Your task to perform on an android device: toggle priority inbox in the gmail app Image 0: 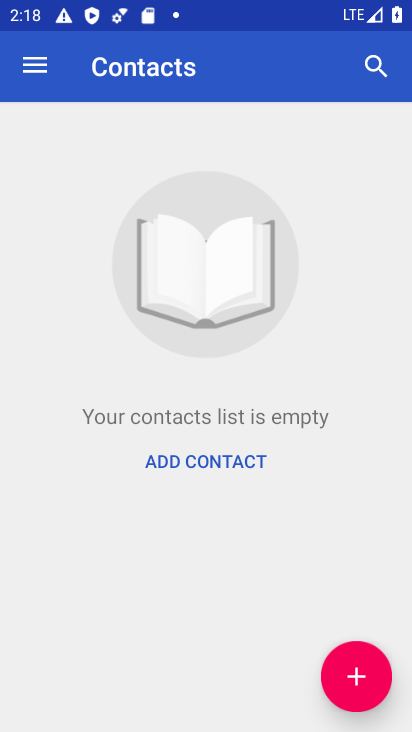
Step 0: press home button
Your task to perform on an android device: toggle priority inbox in the gmail app Image 1: 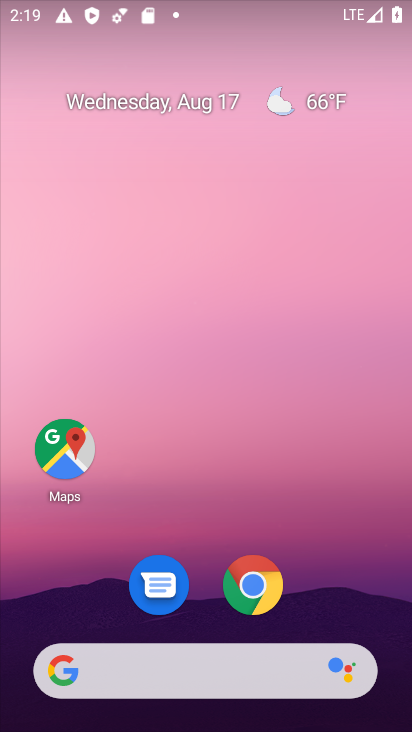
Step 1: drag from (247, 493) to (239, 3)
Your task to perform on an android device: toggle priority inbox in the gmail app Image 2: 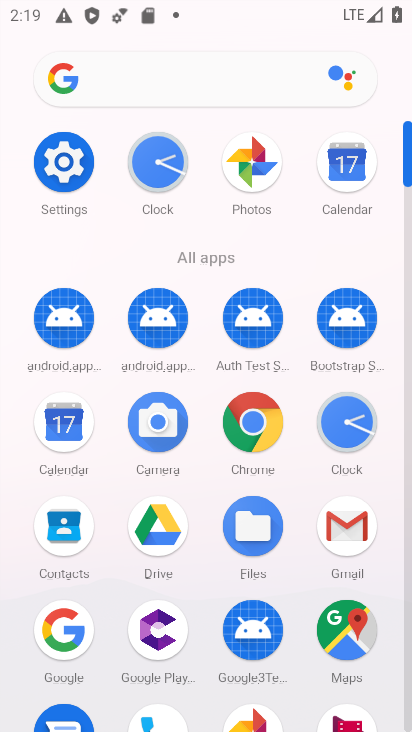
Step 2: click (353, 525)
Your task to perform on an android device: toggle priority inbox in the gmail app Image 3: 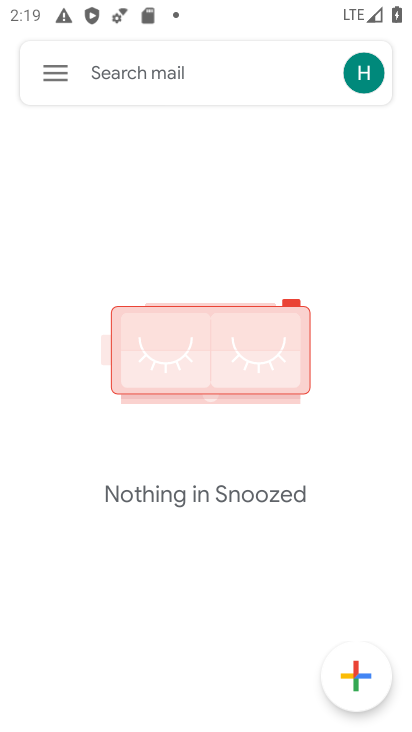
Step 3: click (51, 64)
Your task to perform on an android device: toggle priority inbox in the gmail app Image 4: 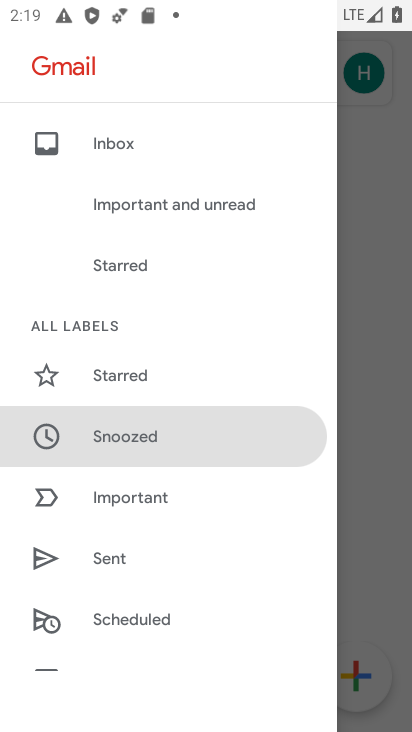
Step 4: click (383, 277)
Your task to perform on an android device: toggle priority inbox in the gmail app Image 5: 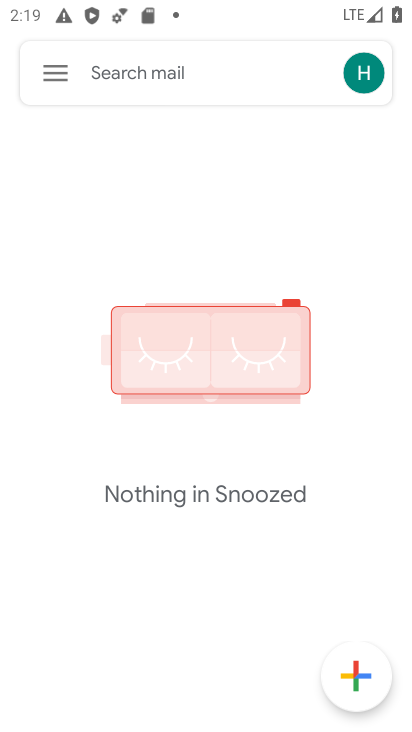
Step 5: click (57, 73)
Your task to perform on an android device: toggle priority inbox in the gmail app Image 6: 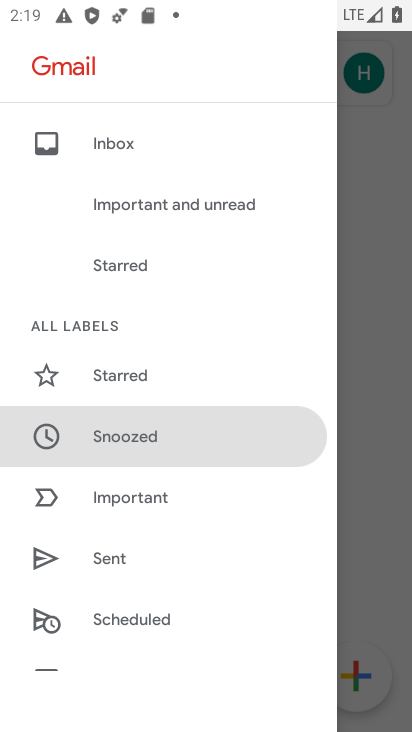
Step 6: drag from (136, 563) to (189, 6)
Your task to perform on an android device: toggle priority inbox in the gmail app Image 7: 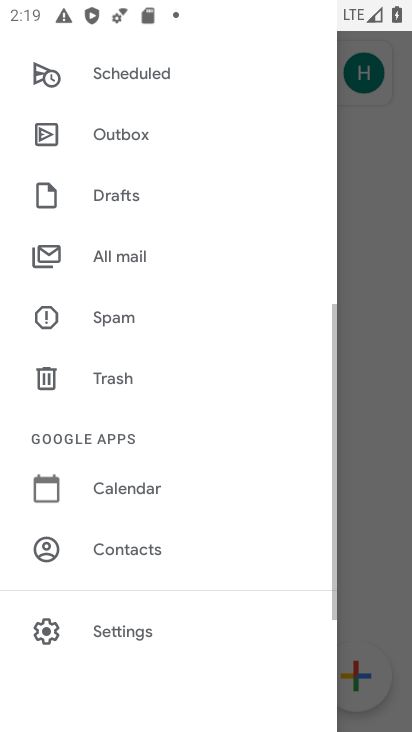
Step 7: drag from (139, 504) to (209, 177)
Your task to perform on an android device: toggle priority inbox in the gmail app Image 8: 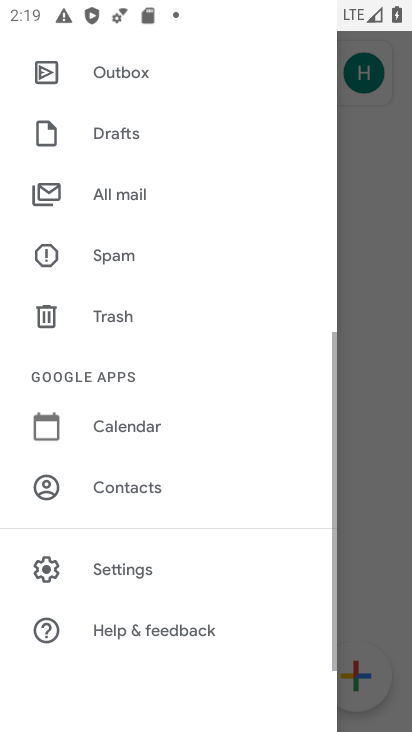
Step 8: click (147, 576)
Your task to perform on an android device: toggle priority inbox in the gmail app Image 9: 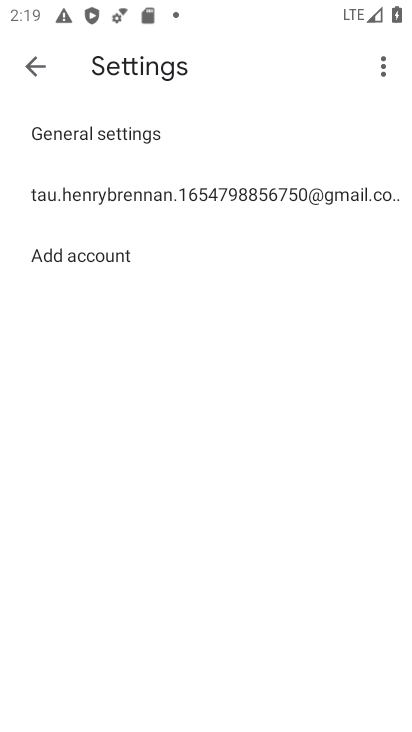
Step 9: click (270, 190)
Your task to perform on an android device: toggle priority inbox in the gmail app Image 10: 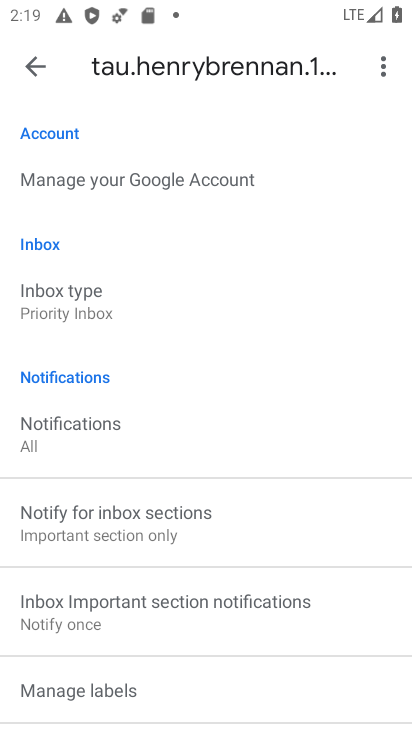
Step 10: click (94, 298)
Your task to perform on an android device: toggle priority inbox in the gmail app Image 11: 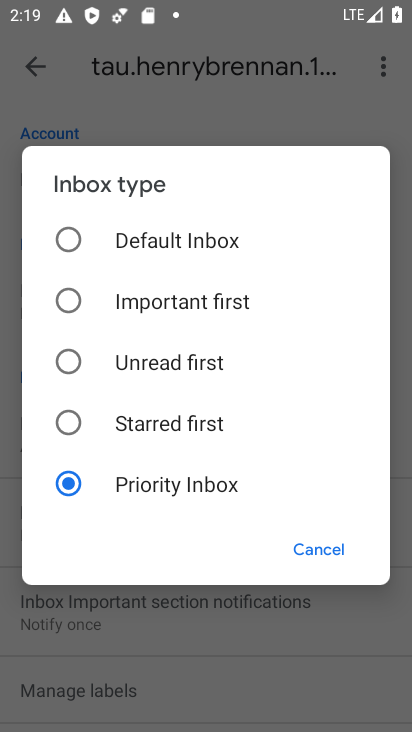
Step 11: click (70, 243)
Your task to perform on an android device: toggle priority inbox in the gmail app Image 12: 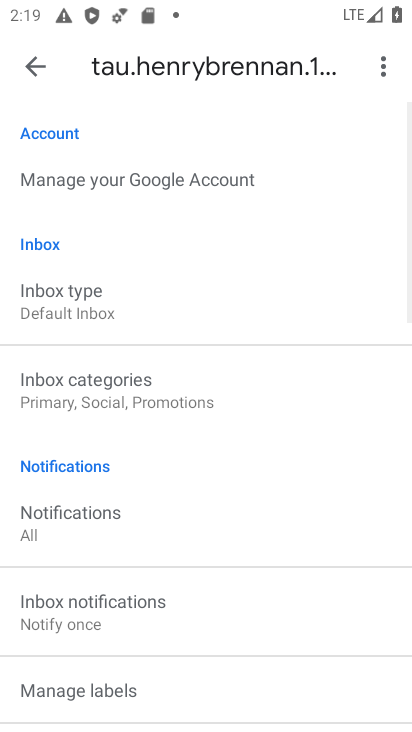
Step 12: task complete